Your task to perform on an android device: Open privacy settings Image 0: 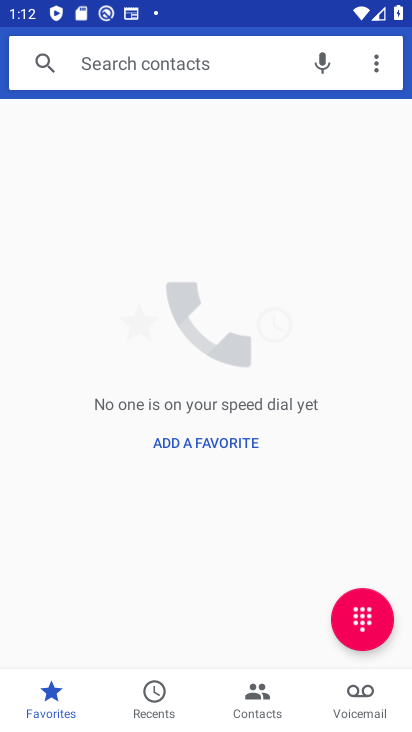
Step 0: press home button
Your task to perform on an android device: Open privacy settings Image 1: 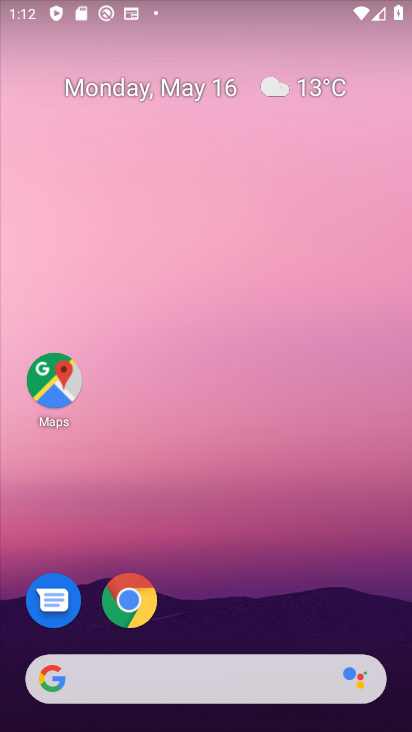
Step 1: drag from (210, 573) to (50, 20)
Your task to perform on an android device: Open privacy settings Image 2: 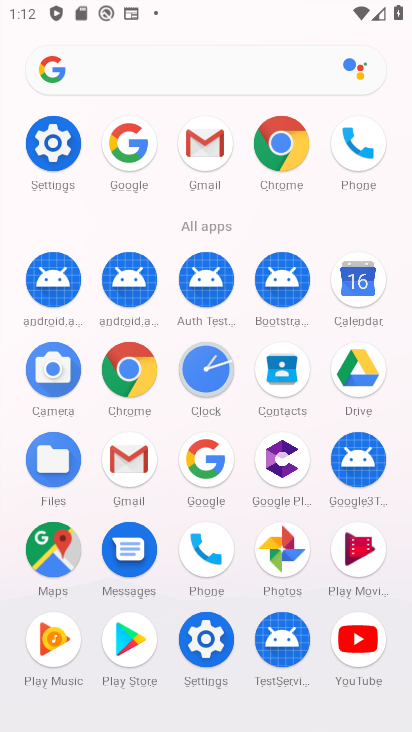
Step 2: click (50, 144)
Your task to perform on an android device: Open privacy settings Image 3: 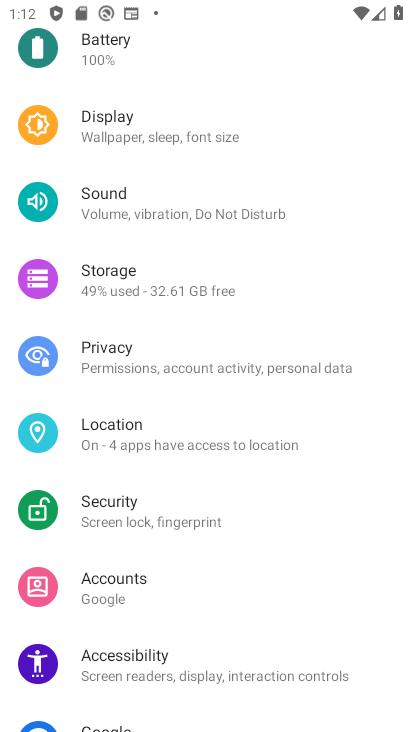
Step 3: click (133, 354)
Your task to perform on an android device: Open privacy settings Image 4: 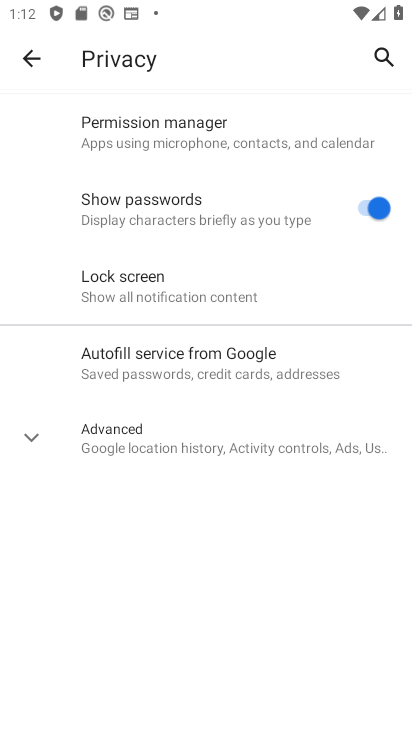
Step 4: click (109, 438)
Your task to perform on an android device: Open privacy settings Image 5: 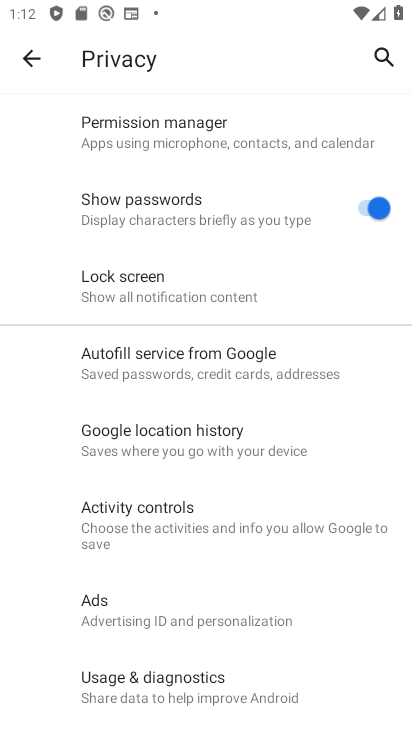
Step 5: task complete